Your task to perform on an android device: Toggle the flashlight Image 0: 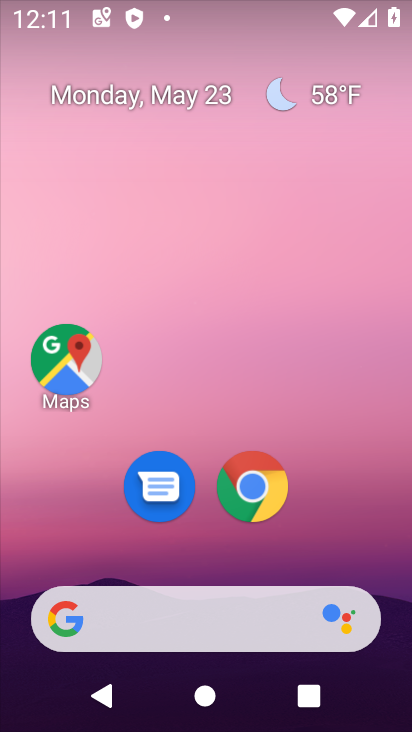
Step 0: drag from (228, 13) to (252, 489)
Your task to perform on an android device: Toggle the flashlight Image 1: 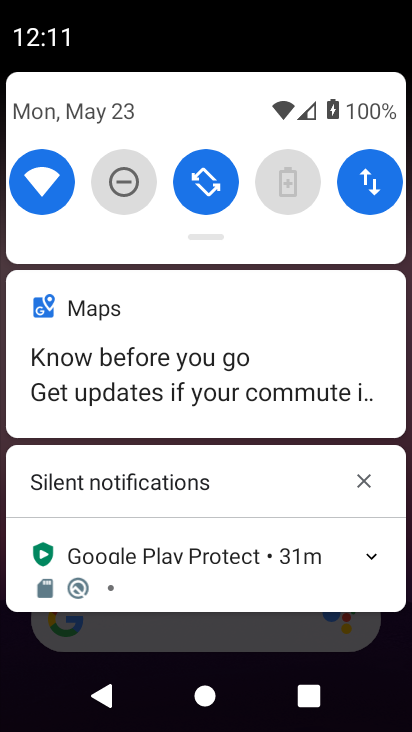
Step 1: drag from (213, 228) to (159, 432)
Your task to perform on an android device: Toggle the flashlight Image 2: 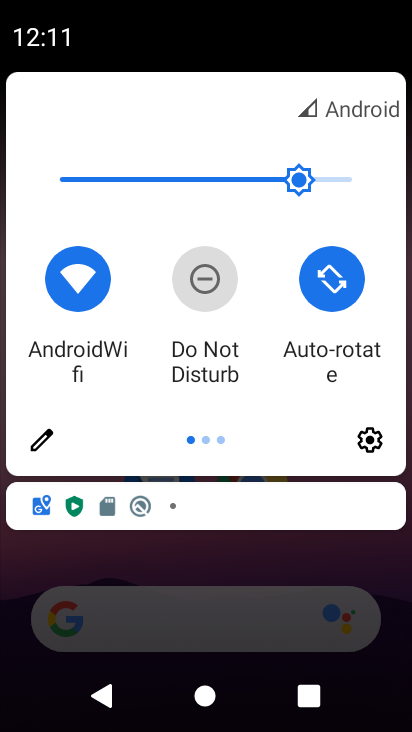
Step 2: click (39, 439)
Your task to perform on an android device: Toggle the flashlight Image 3: 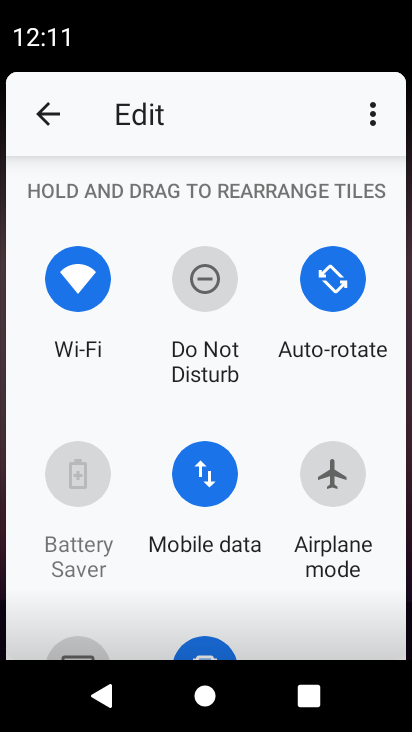
Step 3: task complete